Your task to perform on an android device: turn smart compose on in the gmail app Image 0: 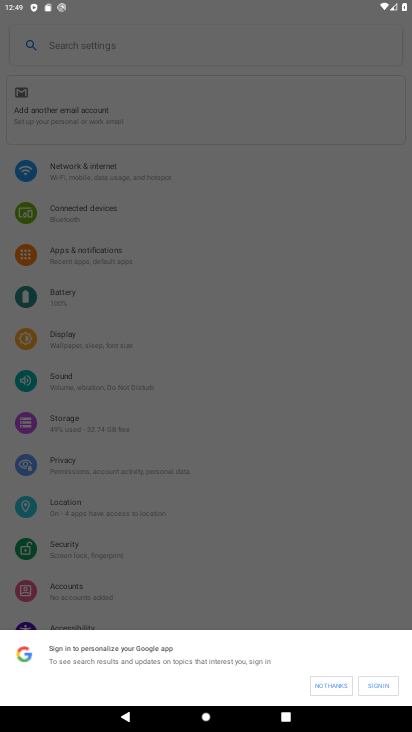
Step 0: press back button
Your task to perform on an android device: turn smart compose on in the gmail app Image 1: 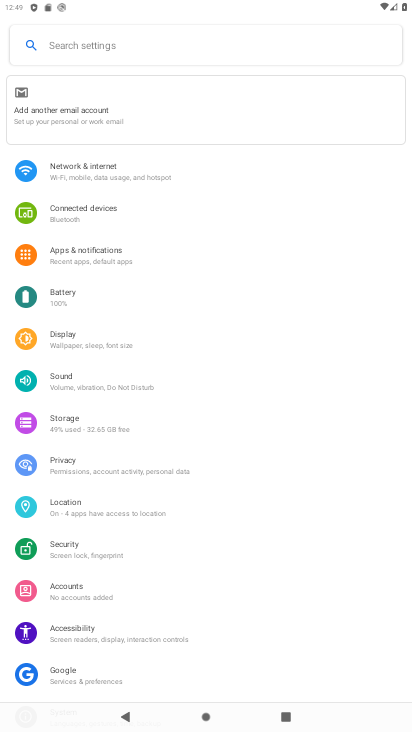
Step 1: press home button
Your task to perform on an android device: turn smart compose on in the gmail app Image 2: 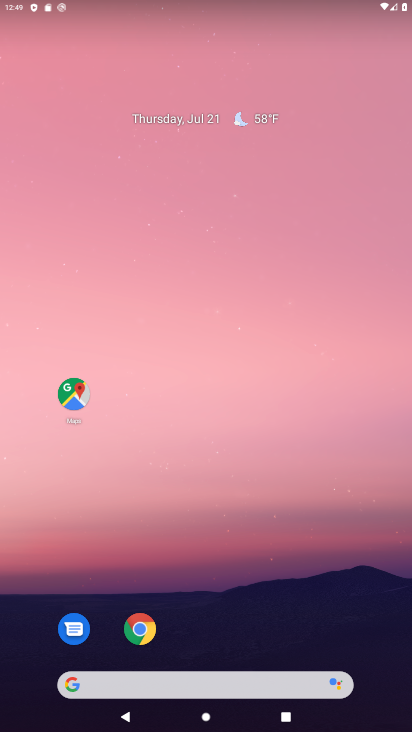
Step 2: drag from (225, 691) to (235, 273)
Your task to perform on an android device: turn smart compose on in the gmail app Image 3: 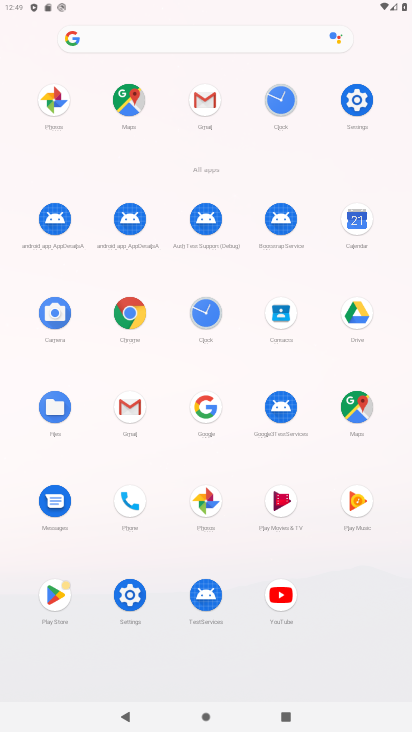
Step 3: click (203, 99)
Your task to perform on an android device: turn smart compose on in the gmail app Image 4: 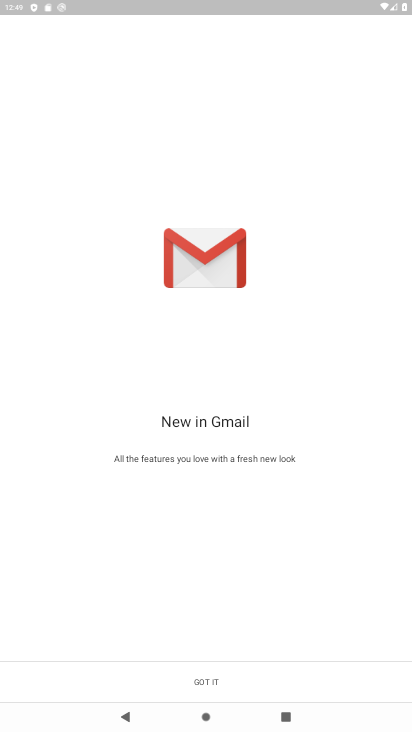
Step 4: click (206, 683)
Your task to perform on an android device: turn smart compose on in the gmail app Image 5: 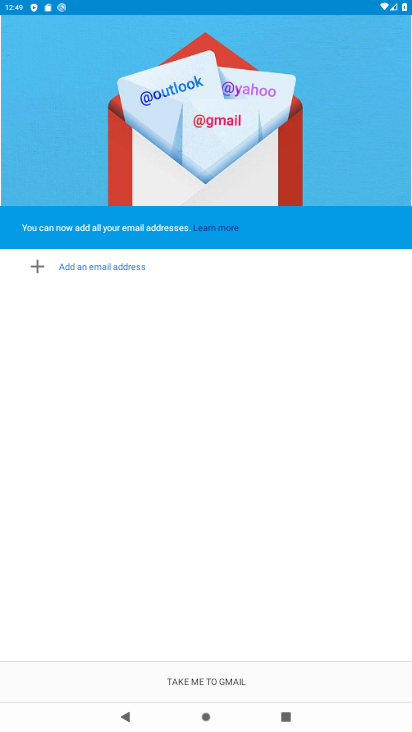
Step 5: click (206, 683)
Your task to perform on an android device: turn smart compose on in the gmail app Image 6: 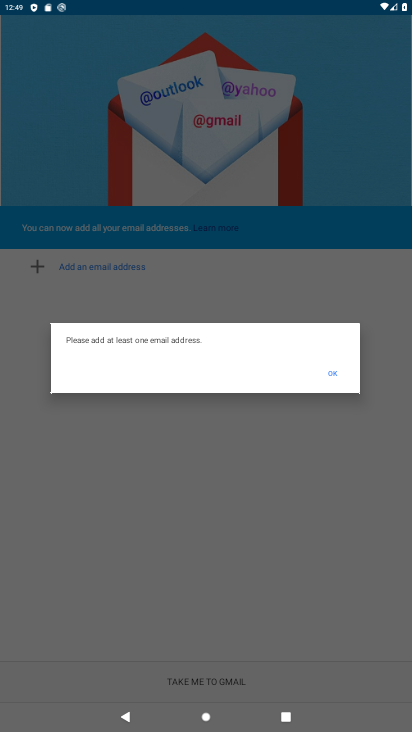
Step 6: click (331, 369)
Your task to perform on an android device: turn smart compose on in the gmail app Image 7: 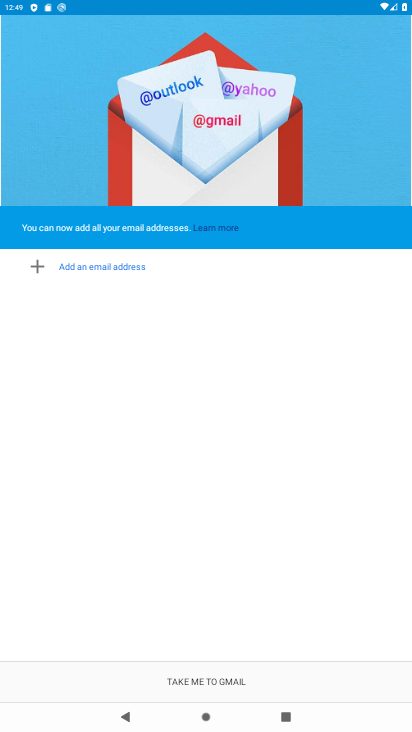
Step 7: press back button
Your task to perform on an android device: turn smart compose on in the gmail app Image 8: 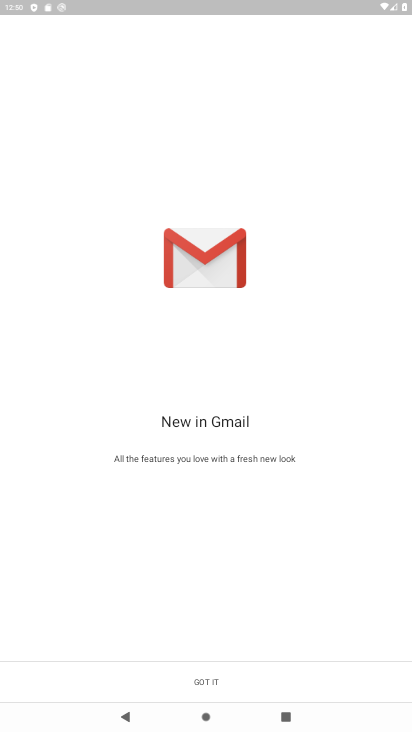
Step 8: click (210, 678)
Your task to perform on an android device: turn smart compose on in the gmail app Image 9: 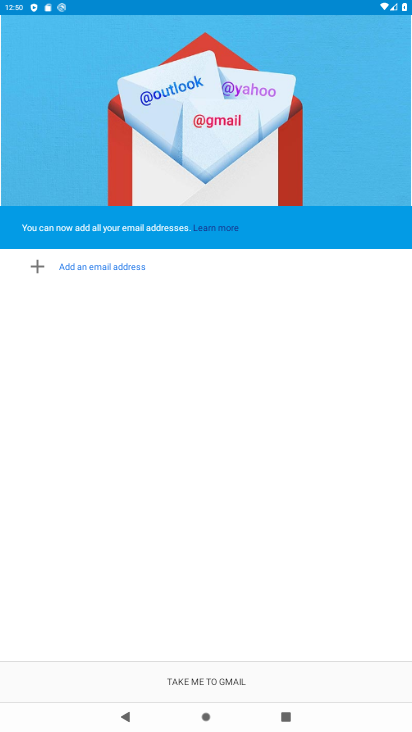
Step 9: task complete